Your task to perform on an android device: Open Google Maps and go to "Timeline" Image 0: 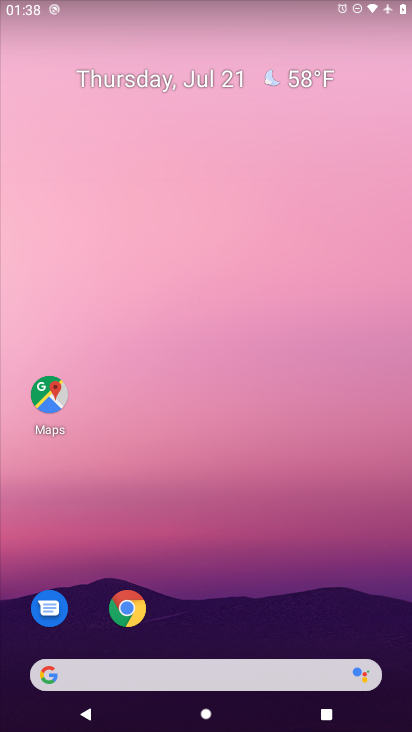
Step 0: press home button
Your task to perform on an android device: Open Google Maps and go to "Timeline" Image 1: 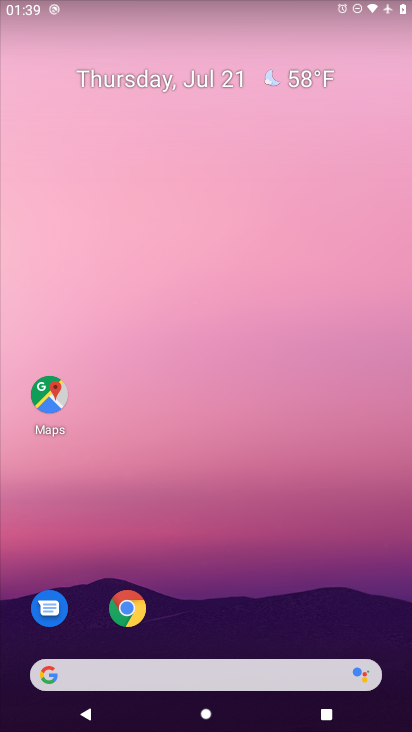
Step 1: drag from (234, 635) to (279, 147)
Your task to perform on an android device: Open Google Maps and go to "Timeline" Image 2: 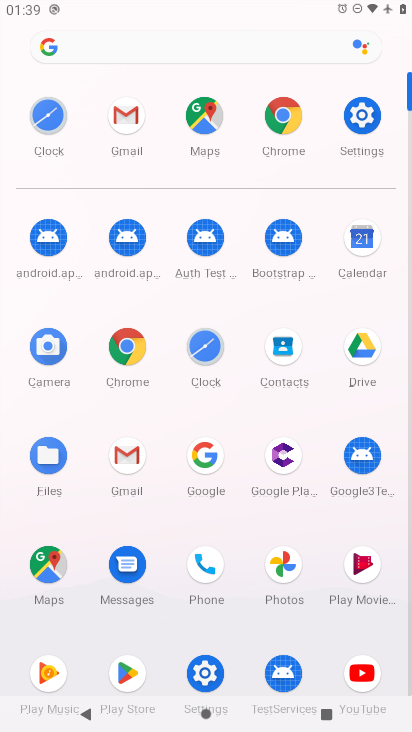
Step 2: click (206, 116)
Your task to perform on an android device: Open Google Maps and go to "Timeline" Image 3: 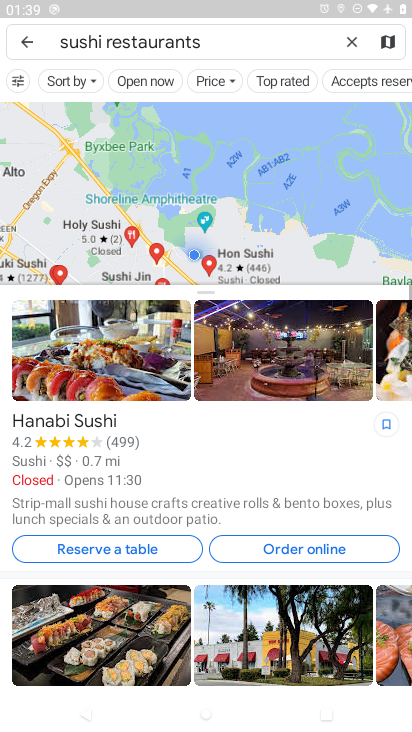
Step 3: click (28, 46)
Your task to perform on an android device: Open Google Maps and go to "Timeline" Image 4: 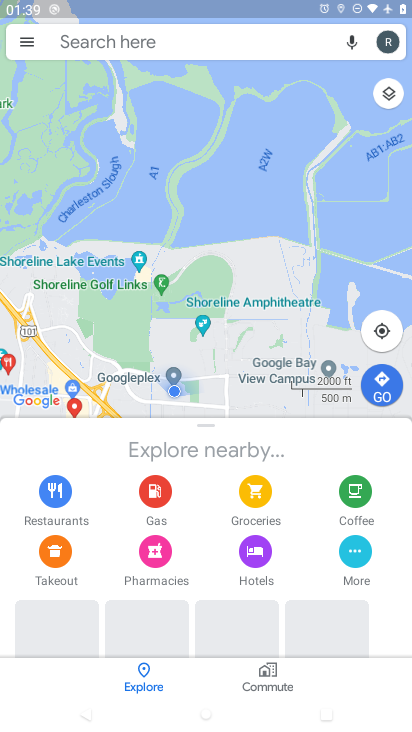
Step 4: click (23, 47)
Your task to perform on an android device: Open Google Maps and go to "Timeline" Image 5: 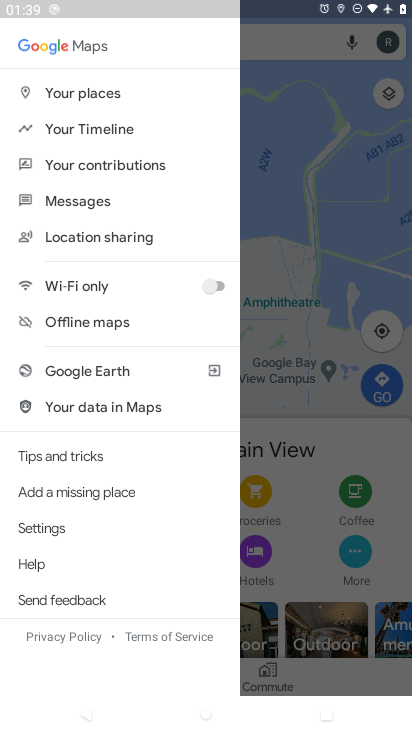
Step 5: click (75, 128)
Your task to perform on an android device: Open Google Maps and go to "Timeline" Image 6: 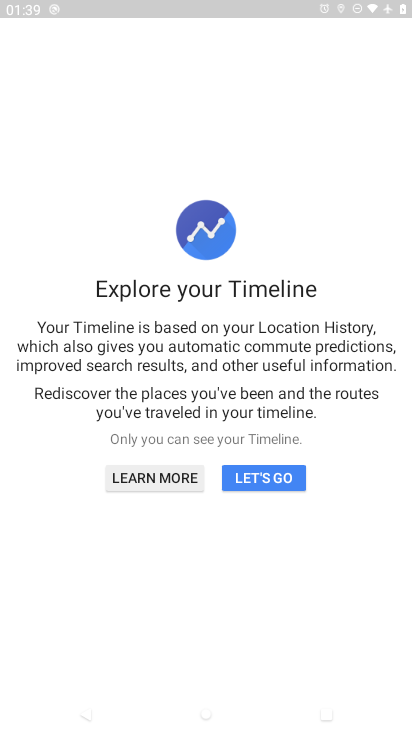
Step 6: click (266, 477)
Your task to perform on an android device: Open Google Maps and go to "Timeline" Image 7: 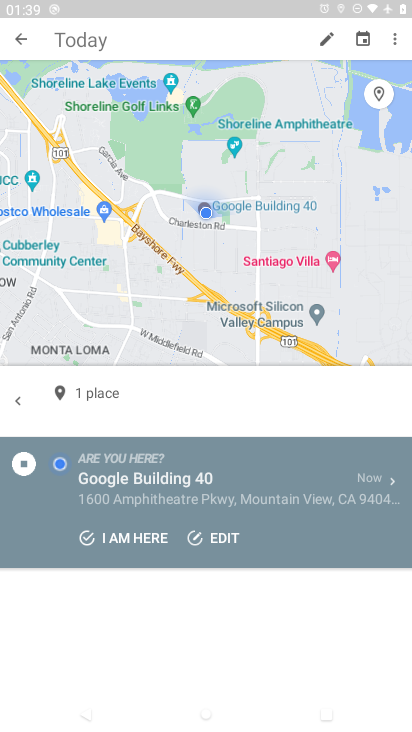
Step 7: task complete